Your task to perform on an android device: turn on showing notifications on the lock screen Image 0: 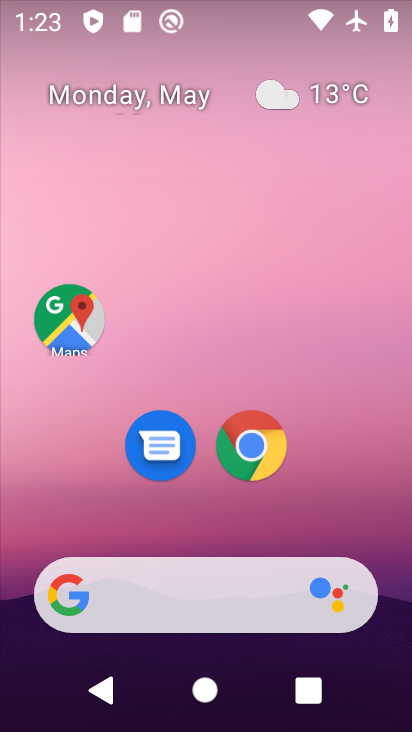
Step 0: drag from (392, 615) to (333, 264)
Your task to perform on an android device: turn on showing notifications on the lock screen Image 1: 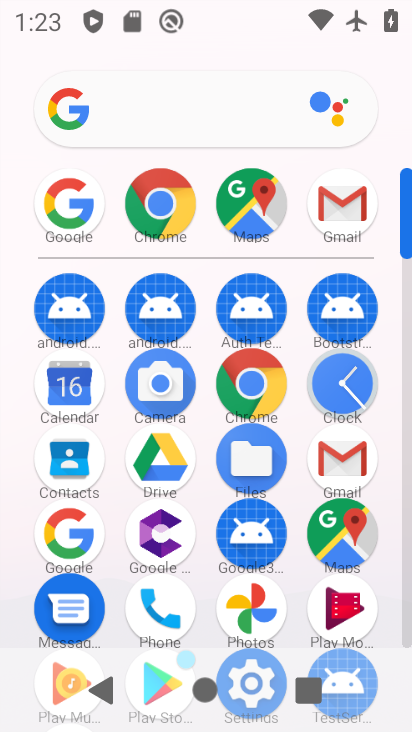
Step 1: drag from (299, 577) to (260, 288)
Your task to perform on an android device: turn on showing notifications on the lock screen Image 2: 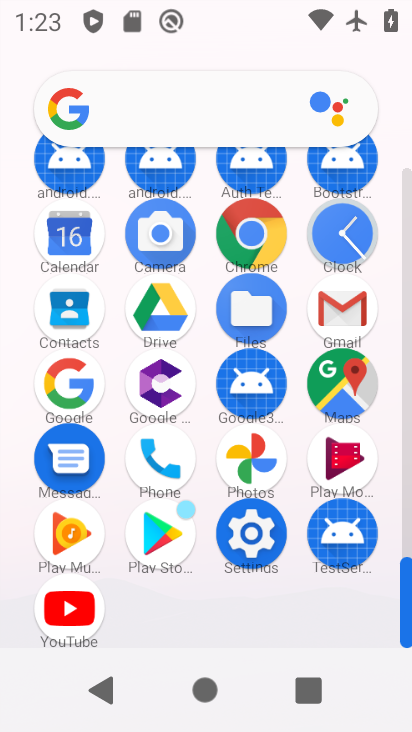
Step 2: click (258, 528)
Your task to perform on an android device: turn on showing notifications on the lock screen Image 3: 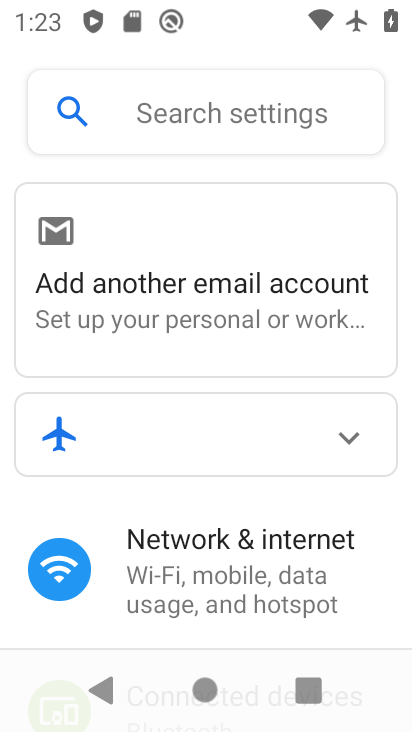
Step 3: drag from (301, 610) to (228, 230)
Your task to perform on an android device: turn on showing notifications on the lock screen Image 4: 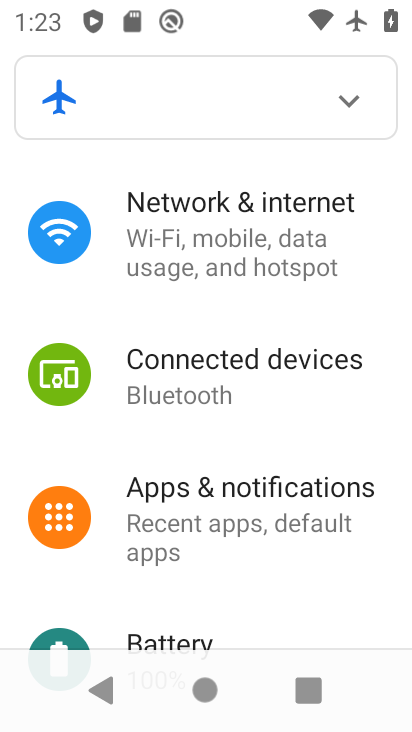
Step 4: drag from (215, 560) to (219, 421)
Your task to perform on an android device: turn on showing notifications on the lock screen Image 5: 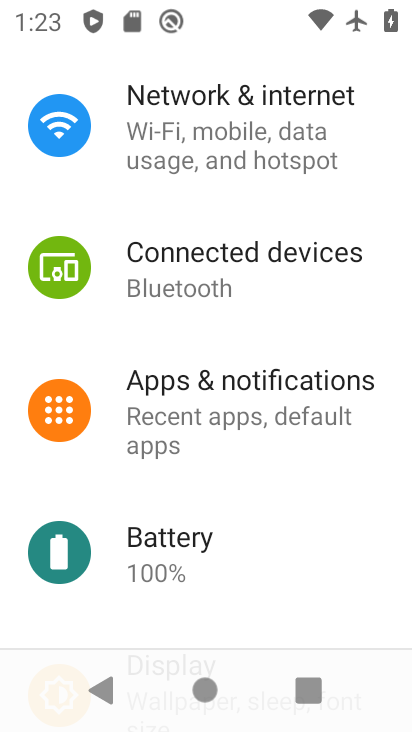
Step 5: click (241, 431)
Your task to perform on an android device: turn on showing notifications on the lock screen Image 6: 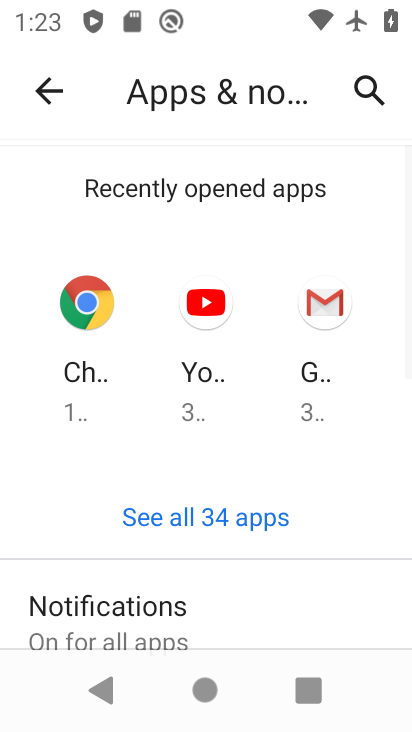
Step 6: click (159, 606)
Your task to perform on an android device: turn on showing notifications on the lock screen Image 7: 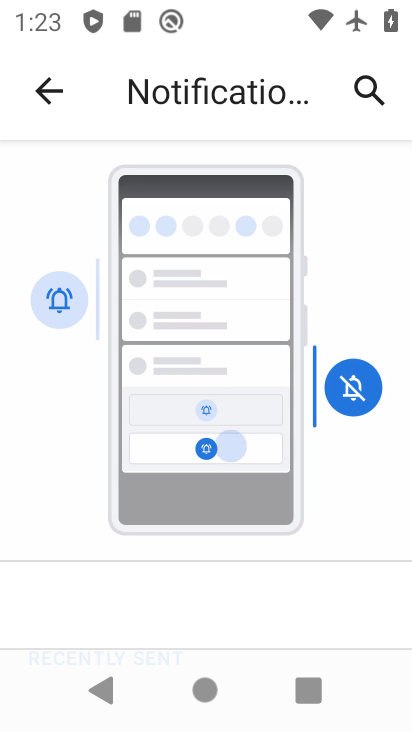
Step 7: drag from (159, 606) to (81, 14)
Your task to perform on an android device: turn on showing notifications on the lock screen Image 8: 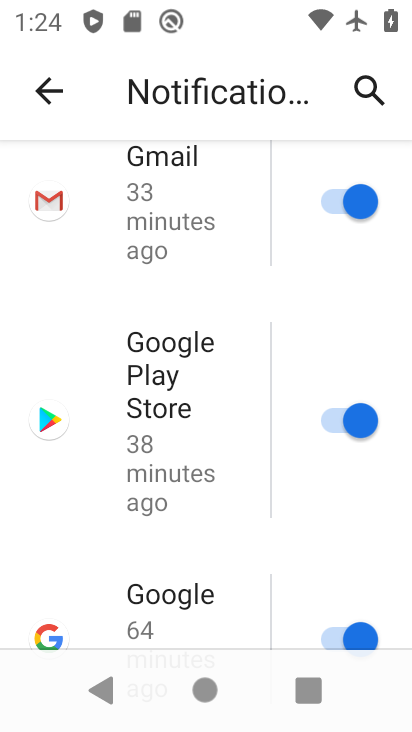
Step 8: drag from (170, 537) to (237, 163)
Your task to perform on an android device: turn on showing notifications on the lock screen Image 9: 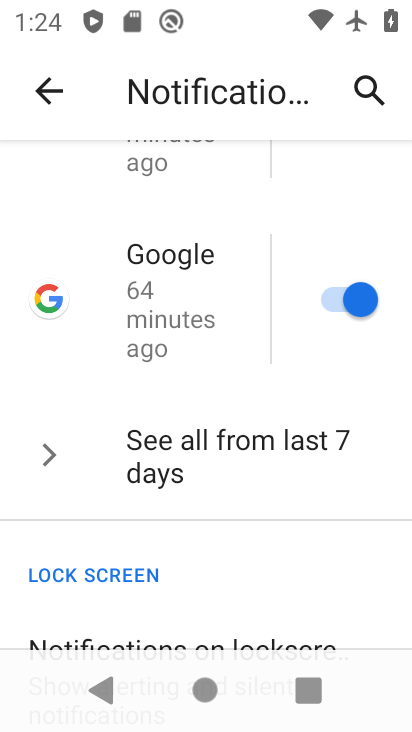
Step 9: drag from (103, 541) to (128, 205)
Your task to perform on an android device: turn on showing notifications on the lock screen Image 10: 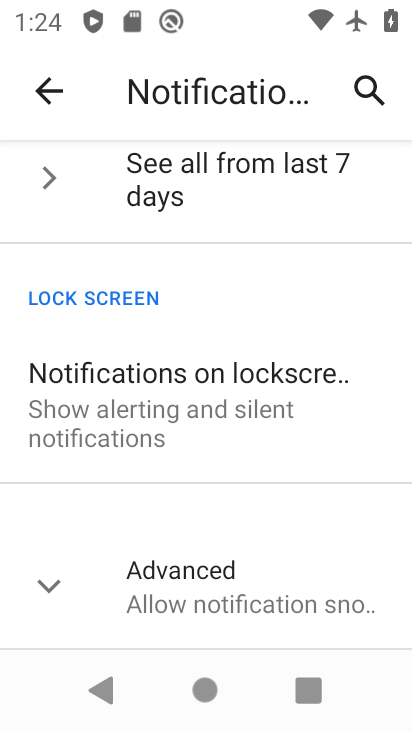
Step 10: click (284, 385)
Your task to perform on an android device: turn on showing notifications on the lock screen Image 11: 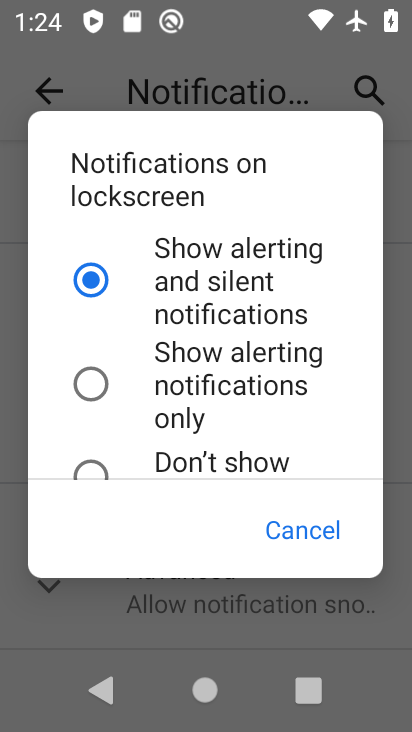
Step 11: task complete